Your task to perform on an android device: visit the assistant section in the google photos Image 0: 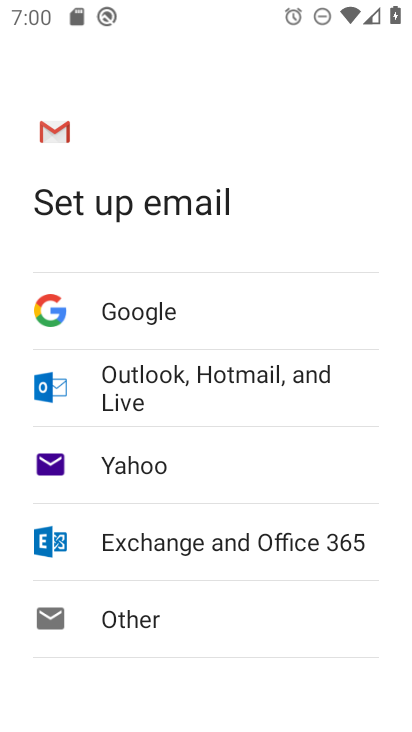
Step 0: press home button
Your task to perform on an android device: visit the assistant section in the google photos Image 1: 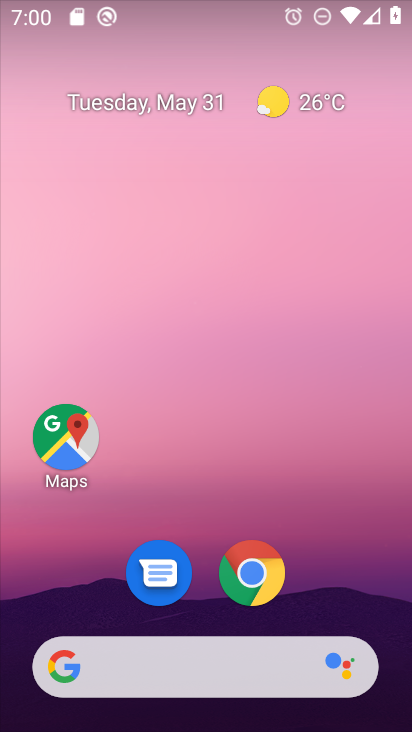
Step 1: drag from (383, 655) to (264, 56)
Your task to perform on an android device: visit the assistant section in the google photos Image 2: 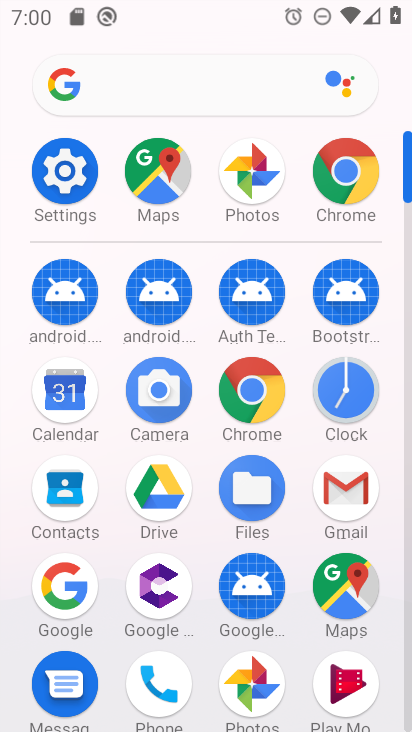
Step 2: click (263, 674)
Your task to perform on an android device: visit the assistant section in the google photos Image 3: 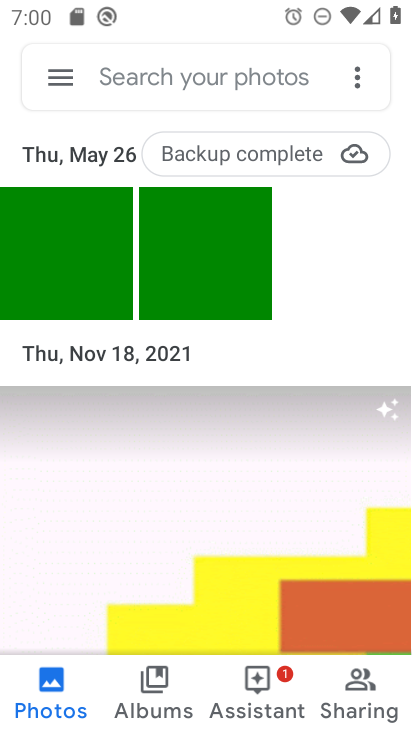
Step 3: click (255, 682)
Your task to perform on an android device: visit the assistant section in the google photos Image 4: 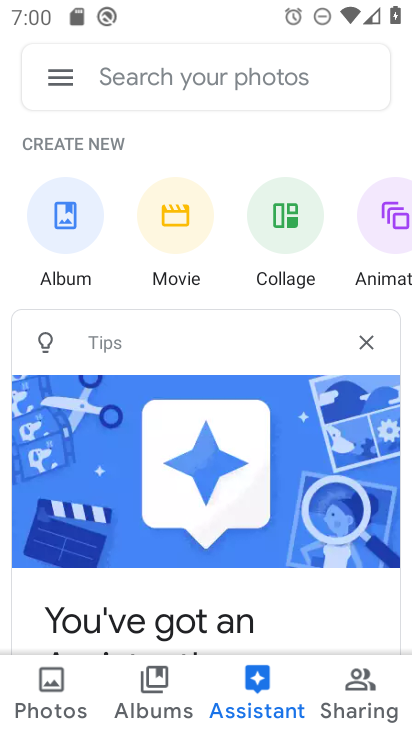
Step 4: task complete